Your task to perform on an android device: open the mobile data screen to see how much data has been used Image 0: 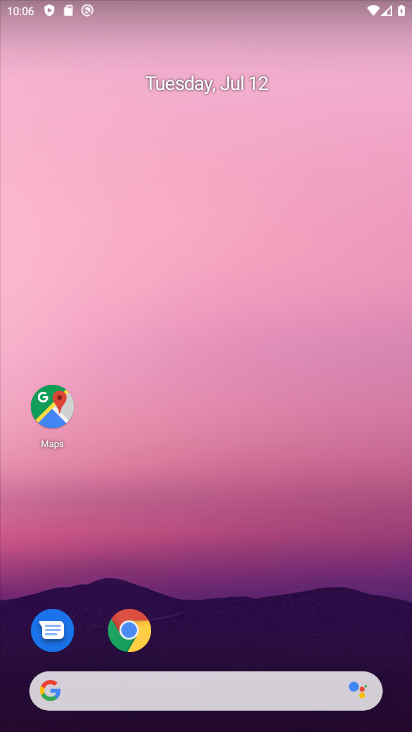
Step 0: drag from (171, 604) to (151, 159)
Your task to perform on an android device: open the mobile data screen to see how much data has been used Image 1: 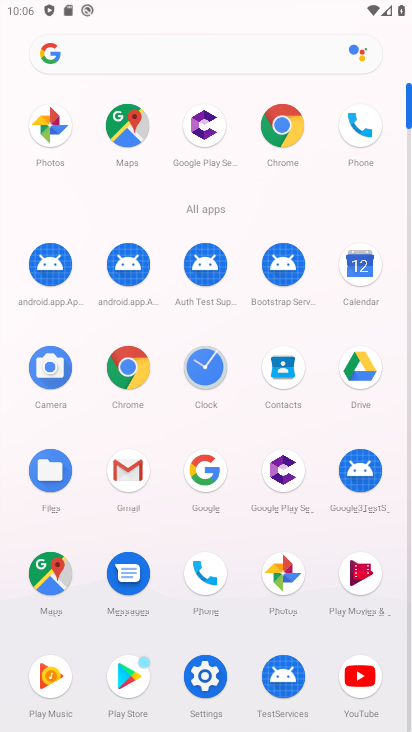
Step 1: click (191, 676)
Your task to perform on an android device: open the mobile data screen to see how much data has been used Image 2: 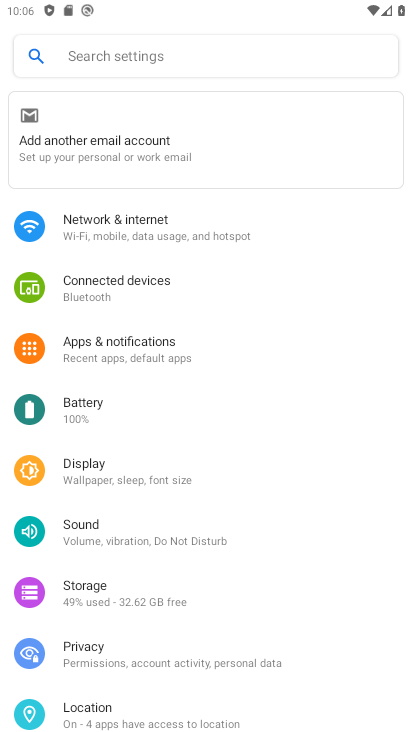
Step 2: click (130, 236)
Your task to perform on an android device: open the mobile data screen to see how much data has been used Image 3: 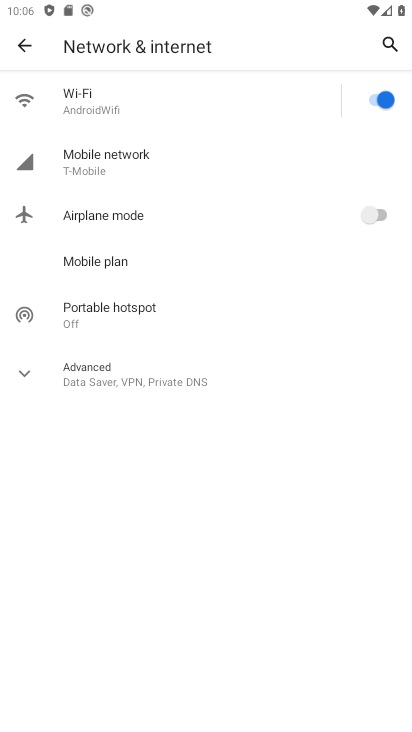
Step 3: click (116, 156)
Your task to perform on an android device: open the mobile data screen to see how much data has been used Image 4: 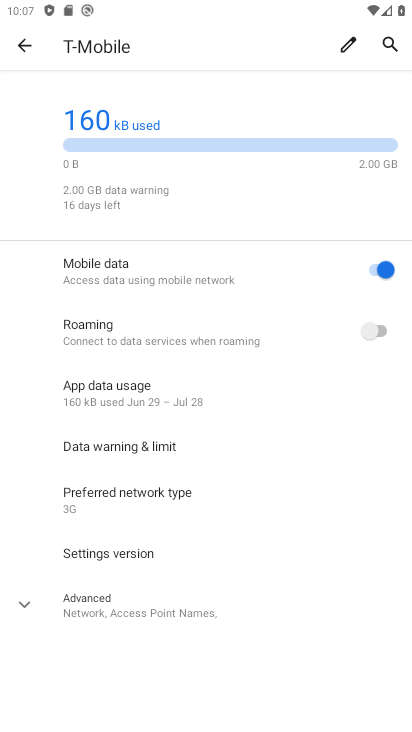
Step 4: task complete